Your task to perform on an android device: Go to Amazon Image 0: 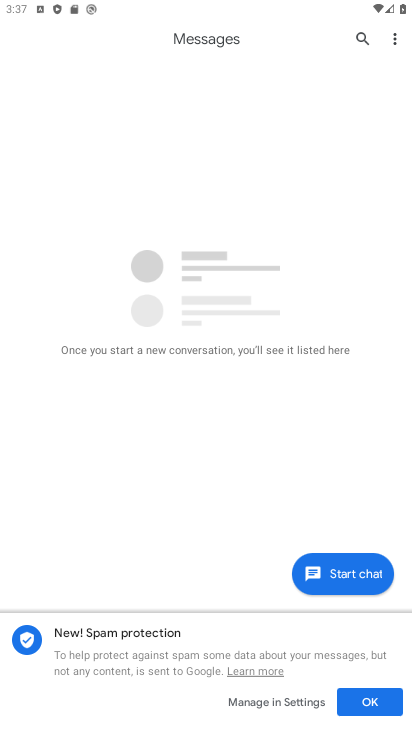
Step 0: press home button
Your task to perform on an android device: Go to Amazon Image 1: 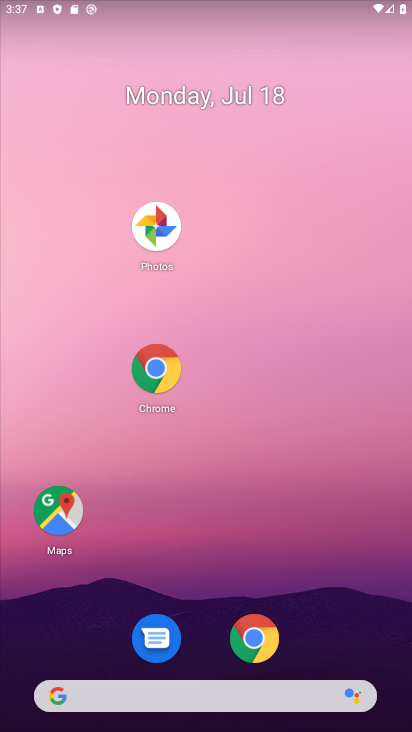
Step 1: click (146, 376)
Your task to perform on an android device: Go to Amazon Image 2: 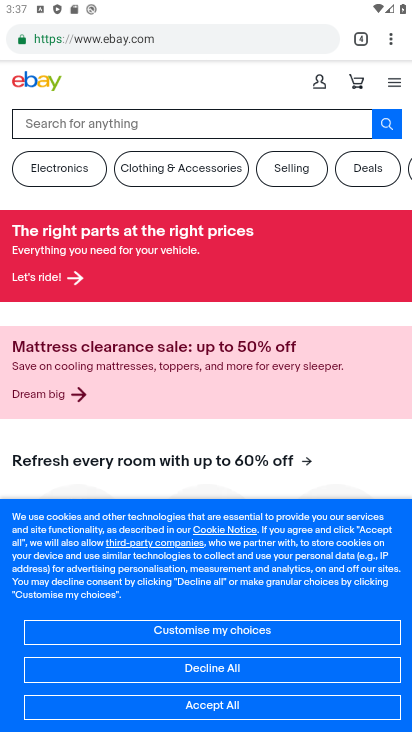
Step 2: click (360, 38)
Your task to perform on an android device: Go to Amazon Image 3: 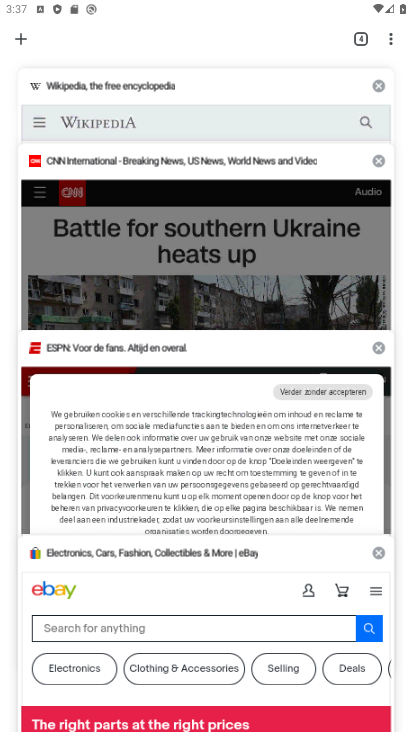
Step 3: drag from (154, 197) to (199, 495)
Your task to perform on an android device: Go to Amazon Image 4: 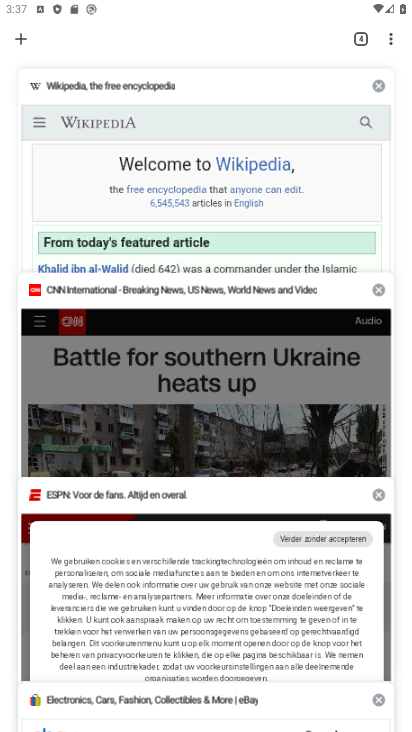
Step 4: click (21, 29)
Your task to perform on an android device: Go to Amazon Image 5: 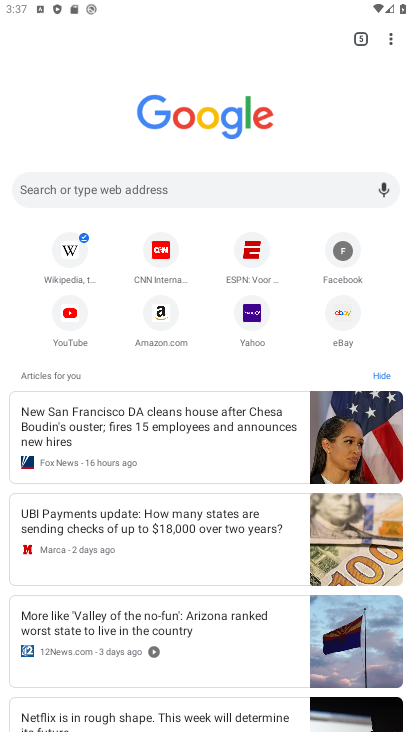
Step 5: click (148, 316)
Your task to perform on an android device: Go to Amazon Image 6: 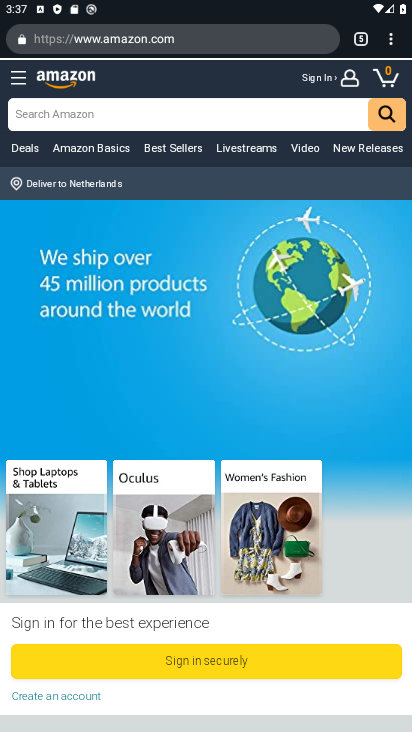
Step 6: task complete